Your task to perform on an android device: Search for Mexican restaurants on Maps Image 0: 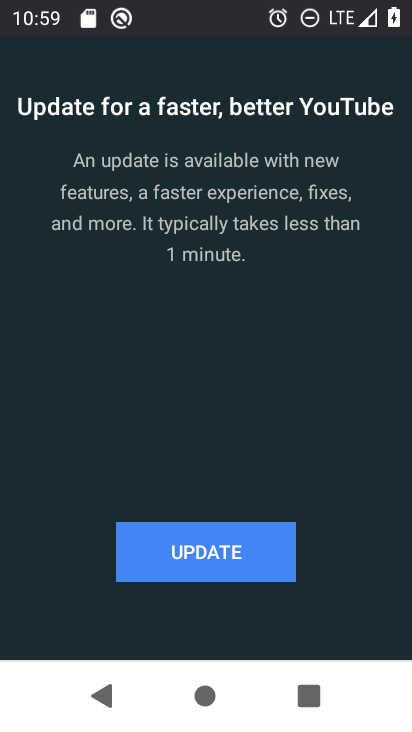
Step 0: press back button
Your task to perform on an android device: Search for Mexican restaurants on Maps Image 1: 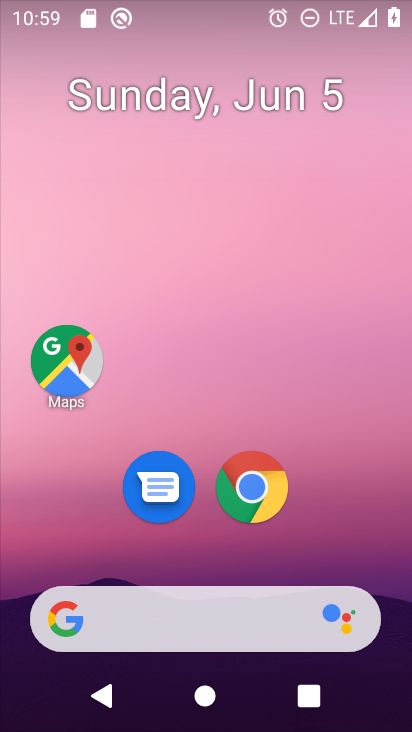
Step 1: click (63, 370)
Your task to perform on an android device: Search for Mexican restaurants on Maps Image 2: 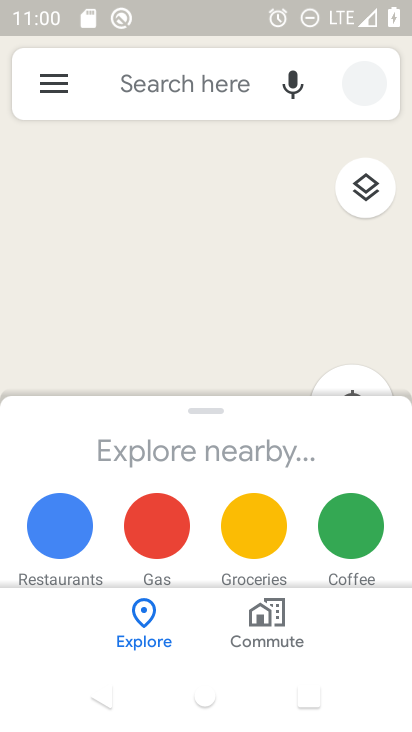
Step 2: click (138, 72)
Your task to perform on an android device: Search for Mexican restaurants on Maps Image 3: 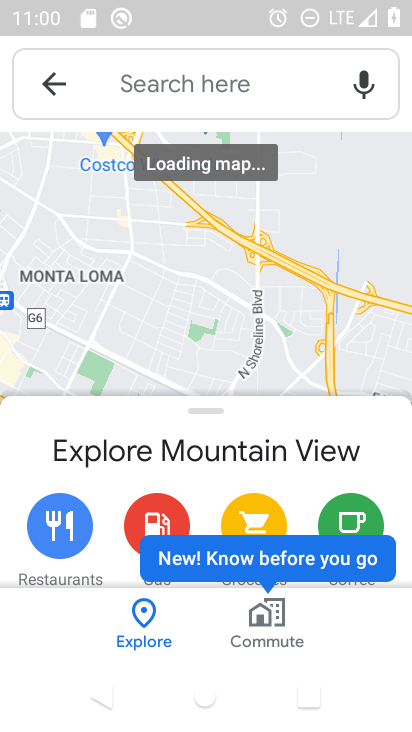
Step 3: click (173, 74)
Your task to perform on an android device: Search for Mexican restaurants on Maps Image 4: 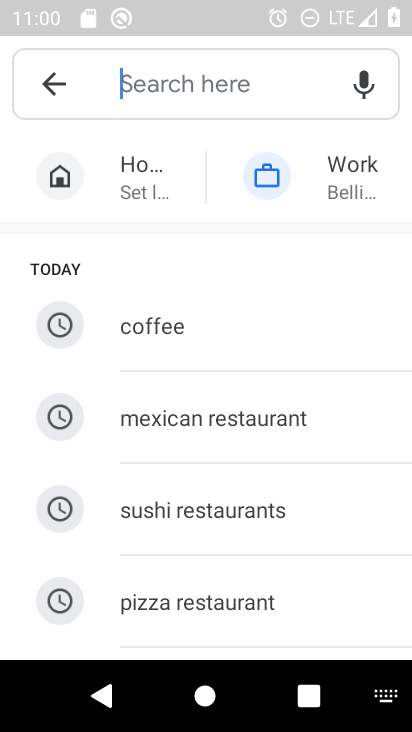
Step 4: click (223, 407)
Your task to perform on an android device: Search for Mexican restaurants on Maps Image 5: 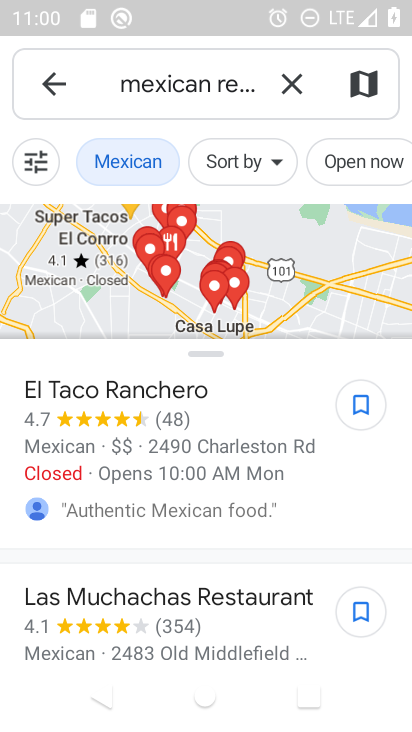
Step 5: task complete